Your task to perform on an android device: toggle location history Image 0: 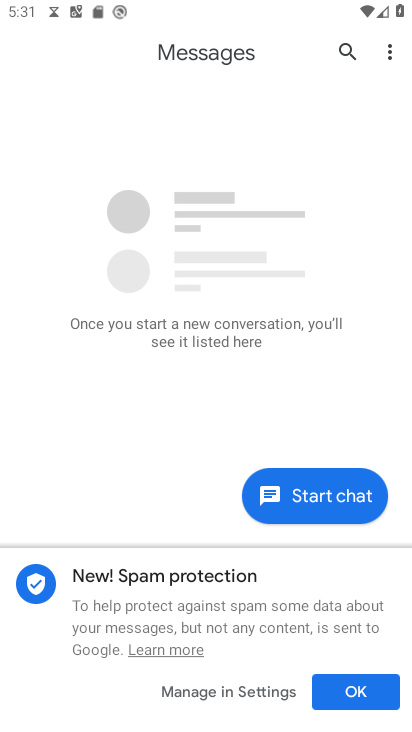
Step 0: press home button
Your task to perform on an android device: toggle location history Image 1: 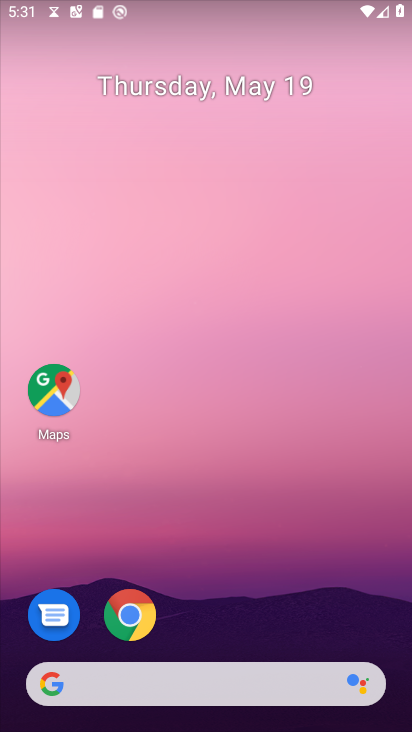
Step 1: drag from (328, 653) to (265, 108)
Your task to perform on an android device: toggle location history Image 2: 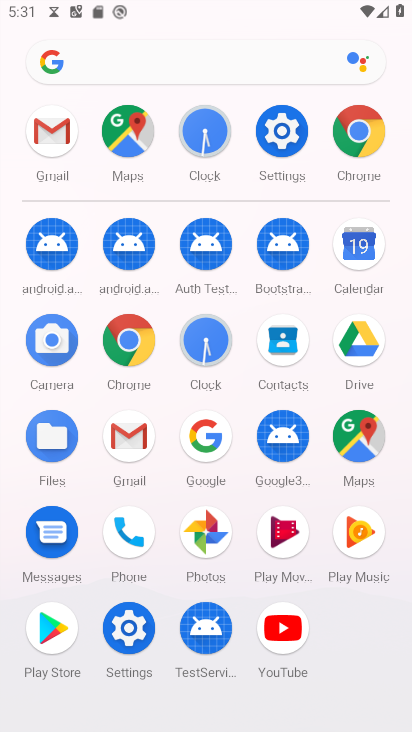
Step 2: click (285, 189)
Your task to perform on an android device: toggle location history Image 3: 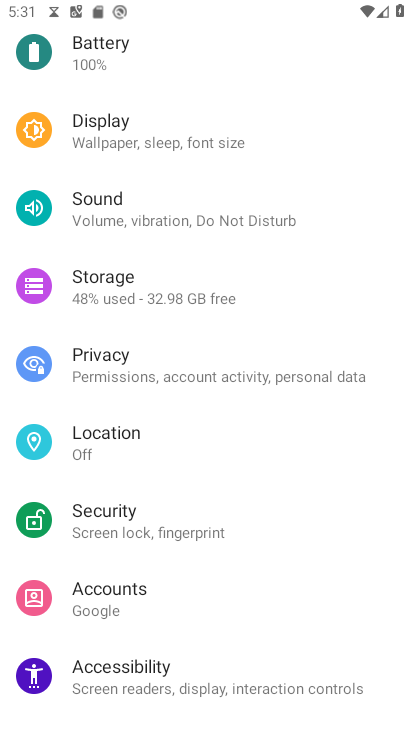
Step 3: click (153, 447)
Your task to perform on an android device: toggle location history Image 4: 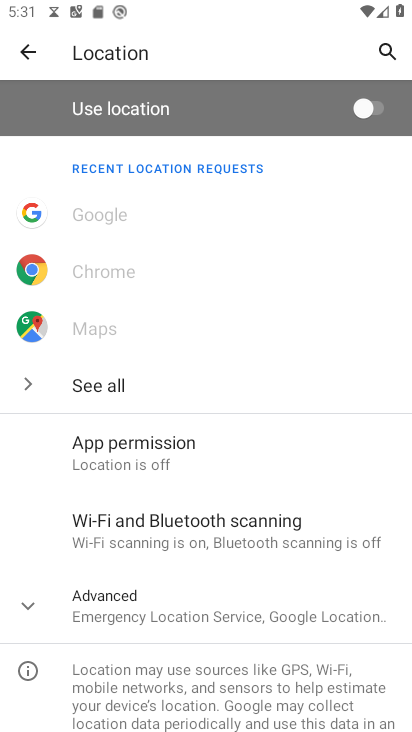
Step 4: click (209, 597)
Your task to perform on an android device: toggle location history Image 5: 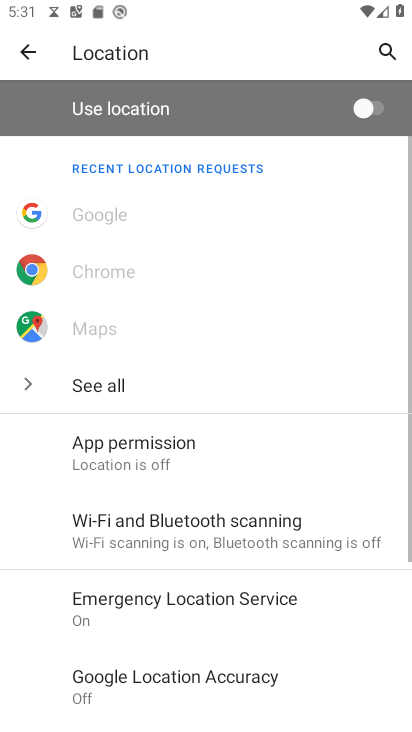
Step 5: drag from (208, 594) to (213, 75)
Your task to perform on an android device: toggle location history Image 6: 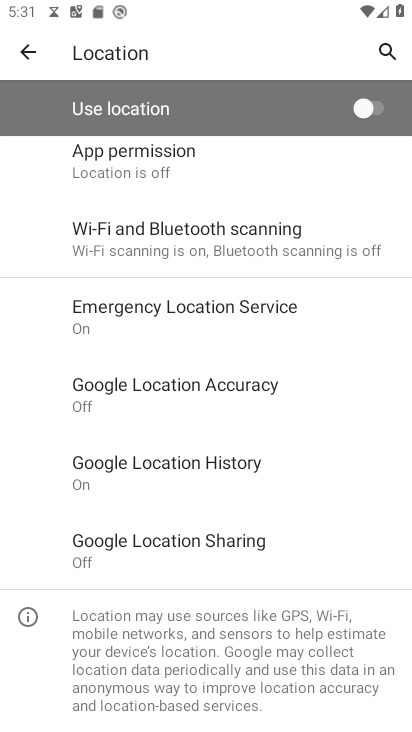
Step 6: click (220, 464)
Your task to perform on an android device: toggle location history Image 7: 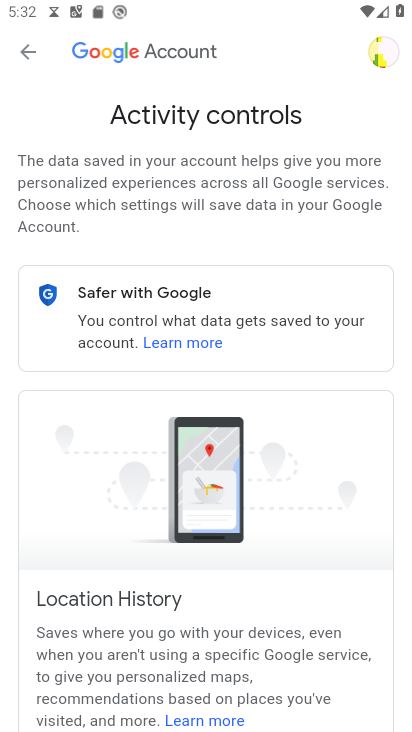
Step 7: drag from (240, 683) to (195, 80)
Your task to perform on an android device: toggle location history Image 8: 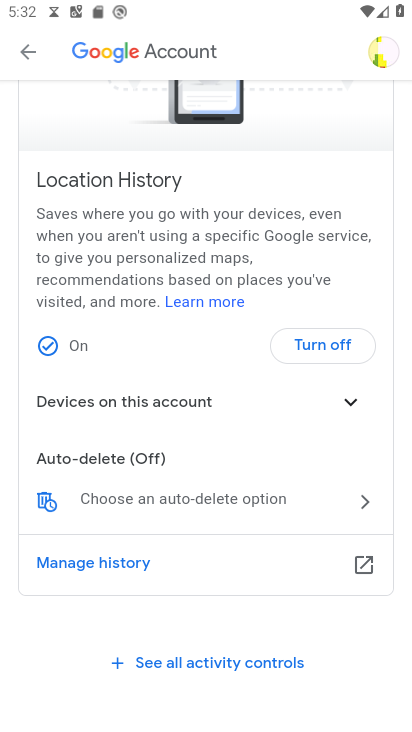
Step 8: click (334, 341)
Your task to perform on an android device: toggle location history Image 9: 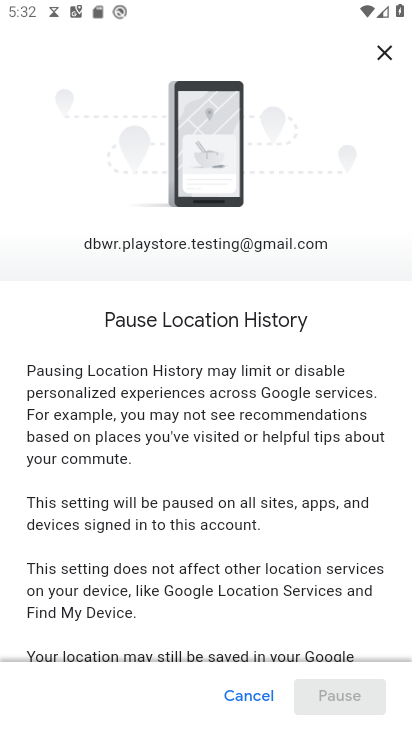
Step 9: drag from (258, 630) to (170, 4)
Your task to perform on an android device: toggle location history Image 10: 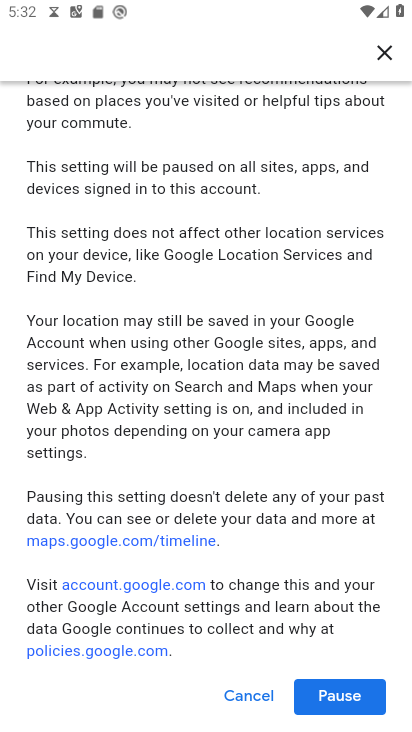
Step 10: click (321, 707)
Your task to perform on an android device: toggle location history Image 11: 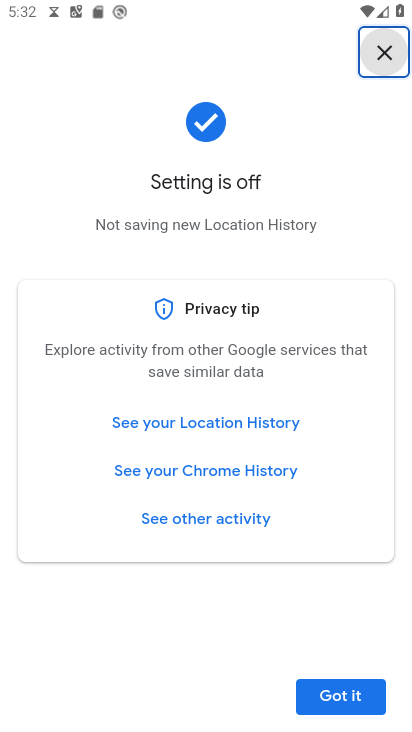
Step 11: task complete